Your task to perform on an android device: move an email to a new category in the gmail app Image 0: 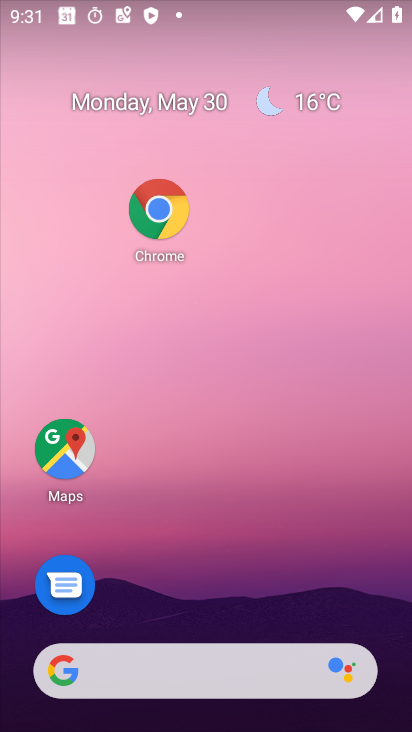
Step 0: drag from (215, 584) to (265, 97)
Your task to perform on an android device: move an email to a new category in the gmail app Image 1: 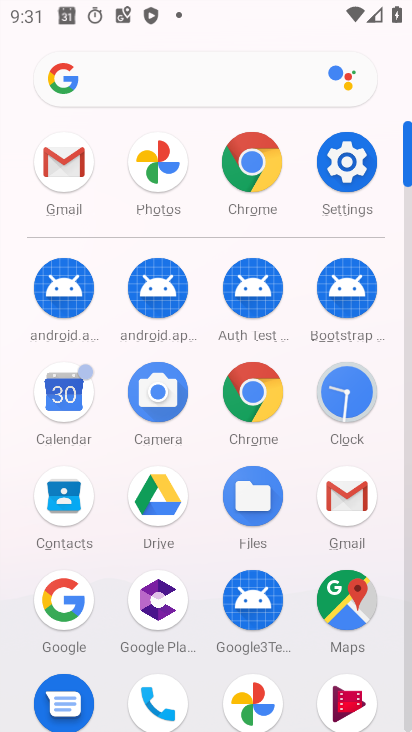
Step 1: click (353, 500)
Your task to perform on an android device: move an email to a new category in the gmail app Image 2: 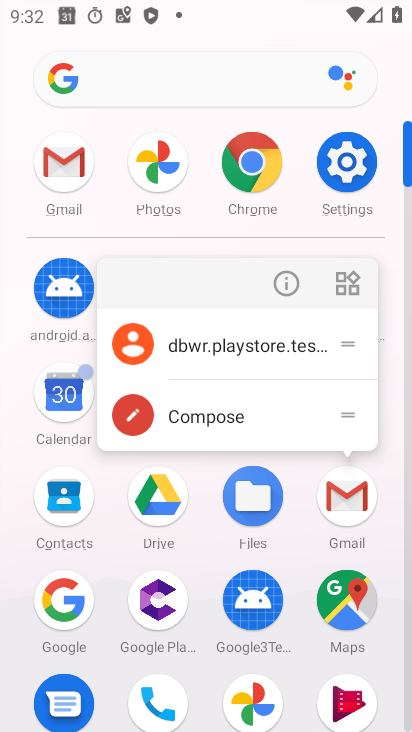
Step 2: click (203, 348)
Your task to perform on an android device: move an email to a new category in the gmail app Image 3: 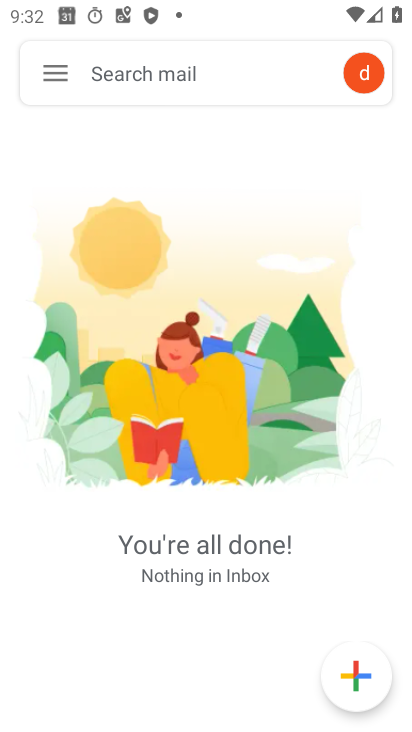
Step 3: click (49, 72)
Your task to perform on an android device: move an email to a new category in the gmail app Image 4: 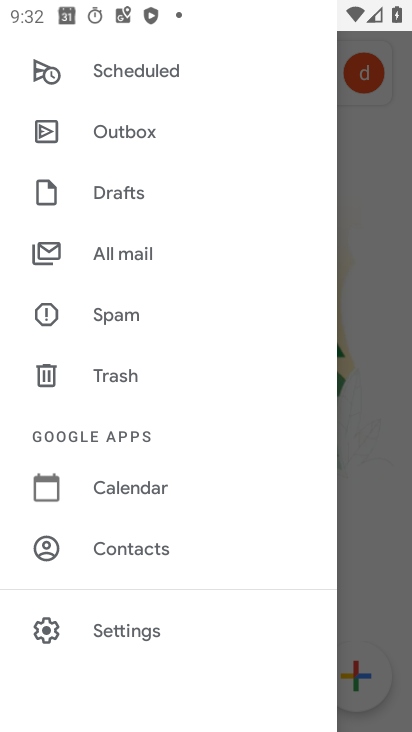
Step 4: drag from (166, 203) to (340, 724)
Your task to perform on an android device: move an email to a new category in the gmail app Image 5: 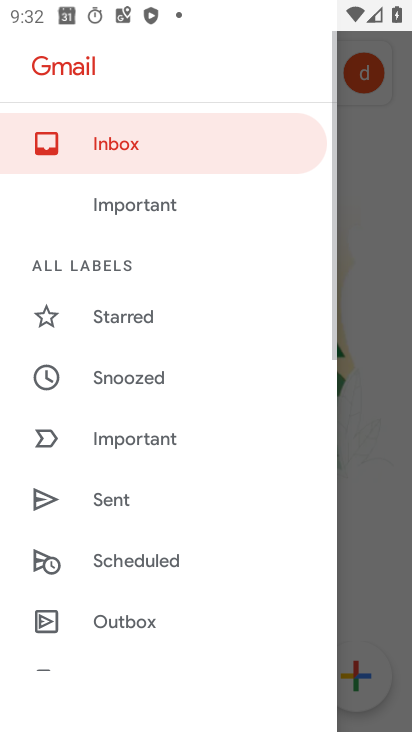
Step 5: click (131, 142)
Your task to perform on an android device: move an email to a new category in the gmail app Image 6: 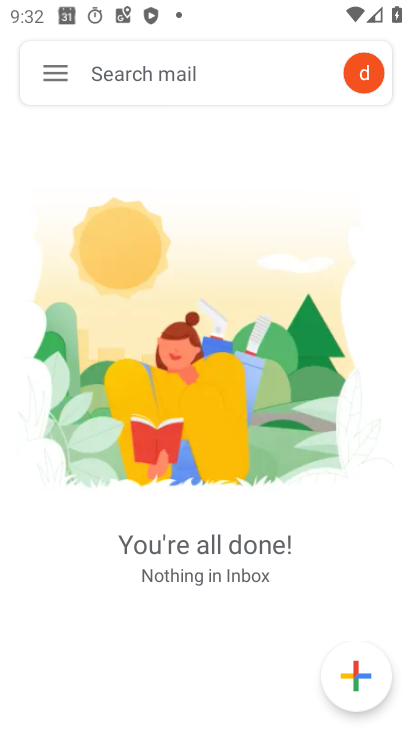
Step 6: task complete